Your task to perform on an android device: Go to Android settings Image 0: 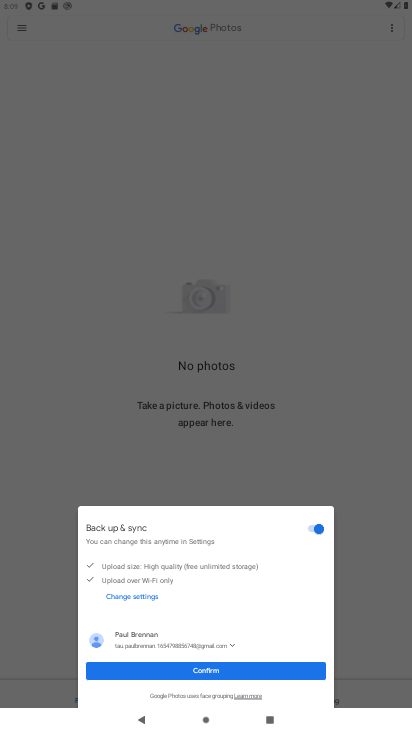
Step 0: press home button
Your task to perform on an android device: Go to Android settings Image 1: 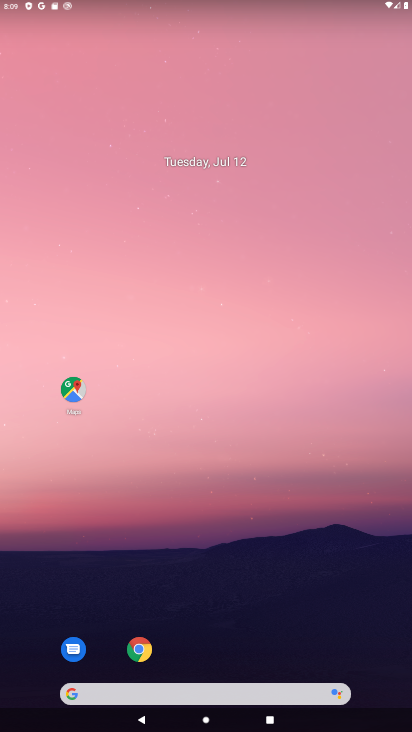
Step 1: drag from (270, 620) to (219, 93)
Your task to perform on an android device: Go to Android settings Image 2: 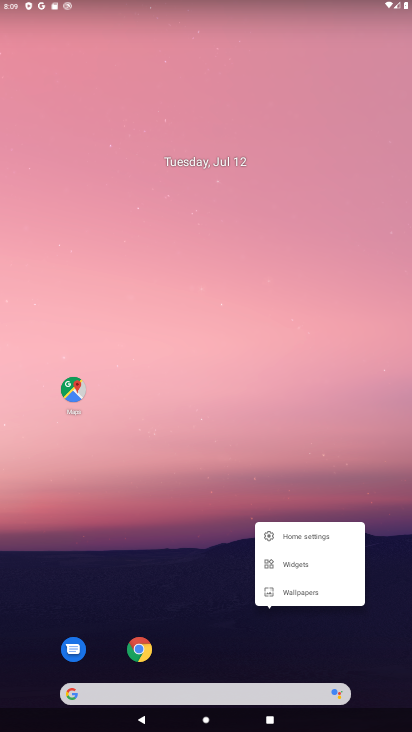
Step 2: click (214, 370)
Your task to perform on an android device: Go to Android settings Image 3: 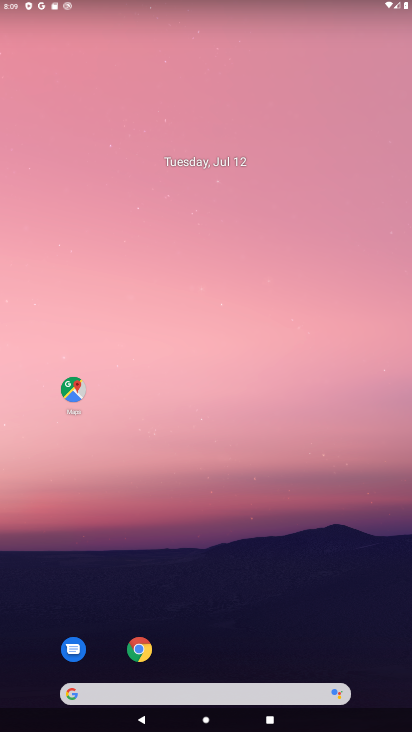
Step 3: drag from (219, 652) to (219, 106)
Your task to perform on an android device: Go to Android settings Image 4: 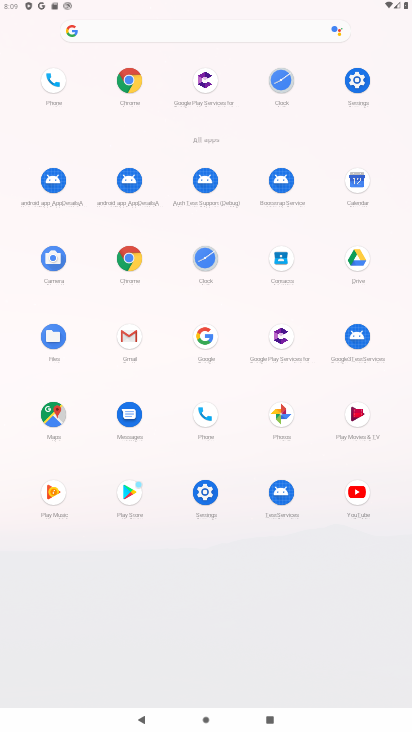
Step 4: click (343, 90)
Your task to perform on an android device: Go to Android settings Image 5: 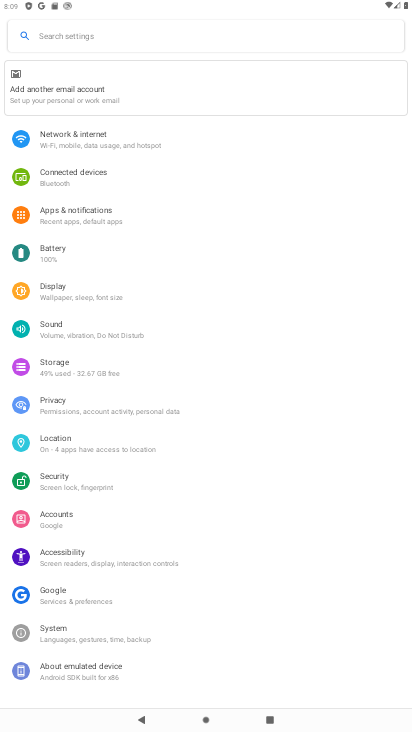
Step 5: click (118, 663)
Your task to perform on an android device: Go to Android settings Image 6: 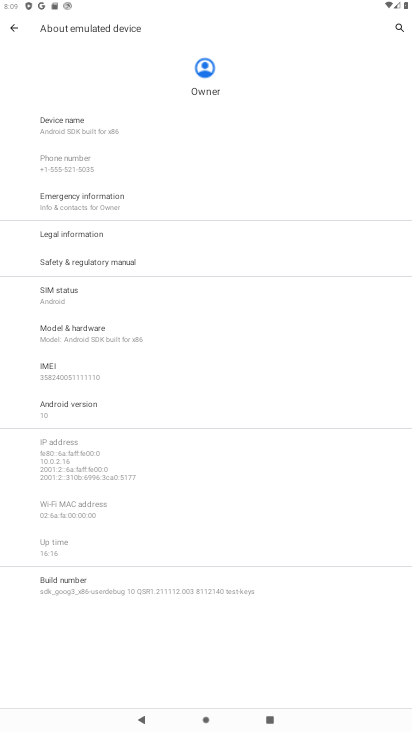
Step 6: task complete